Your task to perform on an android device: Go to Maps Image 0: 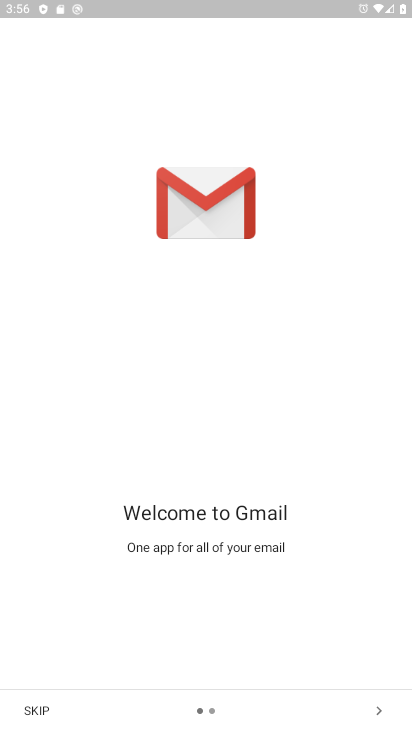
Step 0: press home button
Your task to perform on an android device: Go to Maps Image 1: 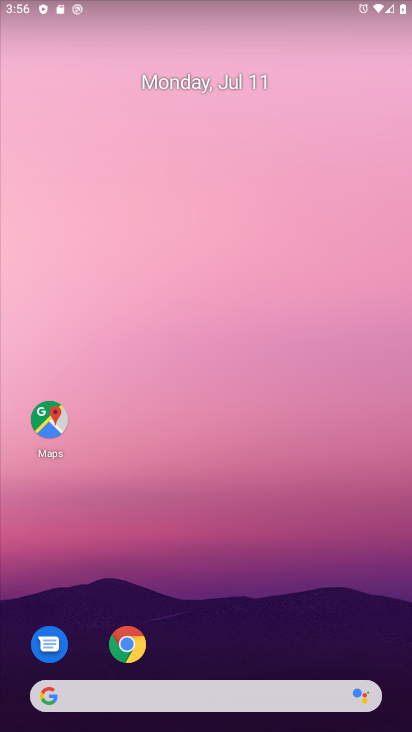
Step 1: drag from (274, 651) to (263, 112)
Your task to perform on an android device: Go to Maps Image 2: 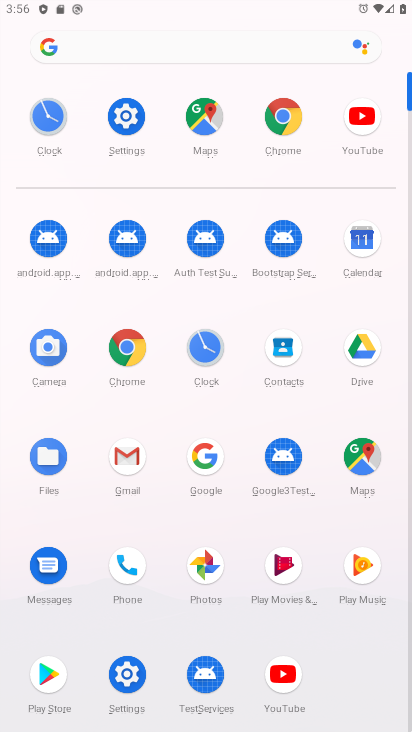
Step 2: drag from (238, 355) to (270, 70)
Your task to perform on an android device: Go to Maps Image 3: 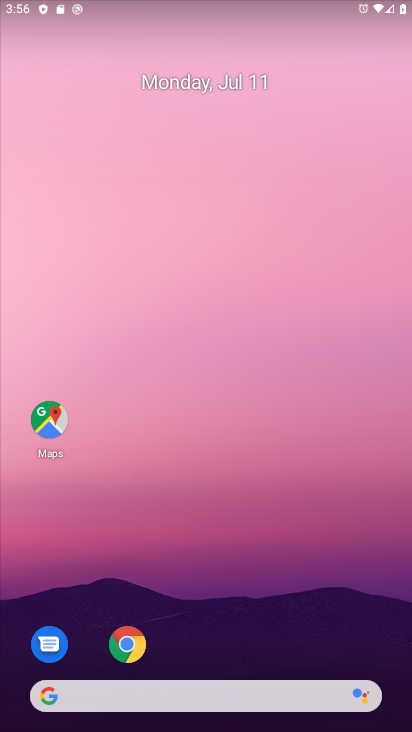
Step 3: drag from (235, 654) to (239, 122)
Your task to perform on an android device: Go to Maps Image 4: 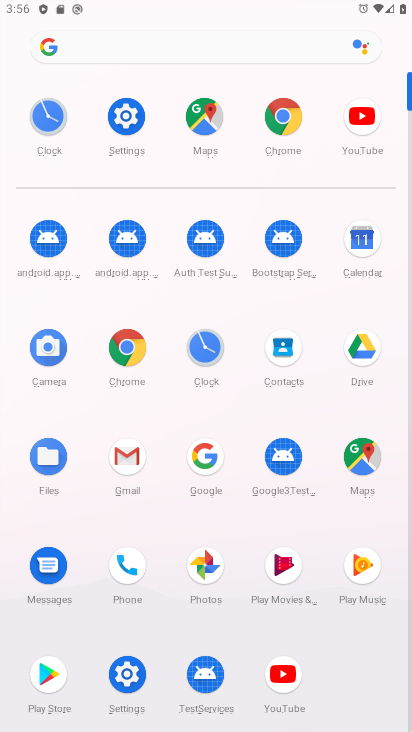
Step 4: click (208, 122)
Your task to perform on an android device: Go to Maps Image 5: 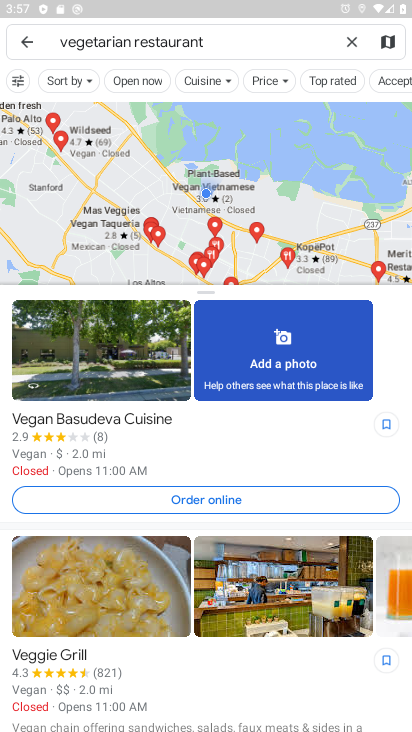
Step 5: click (29, 42)
Your task to perform on an android device: Go to Maps Image 6: 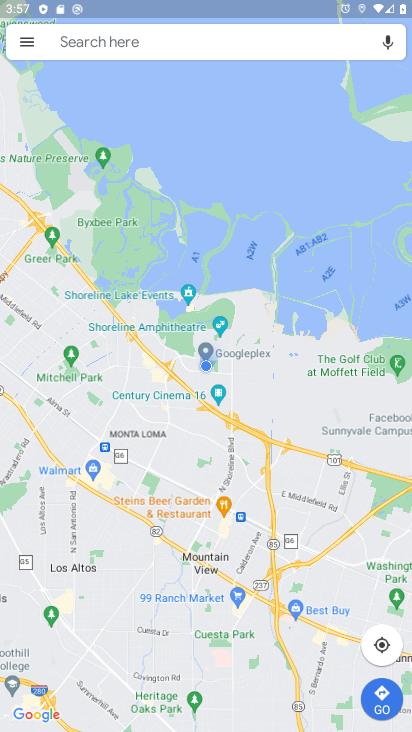
Step 6: click (386, 648)
Your task to perform on an android device: Go to Maps Image 7: 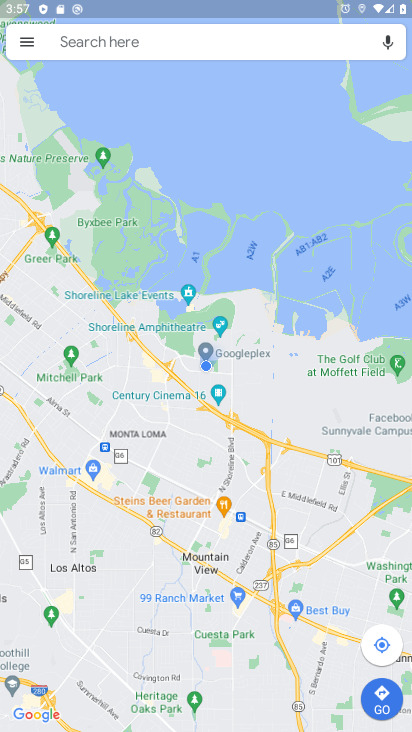
Step 7: task complete